Your task to perform on an android device: Go to Google Image 0: 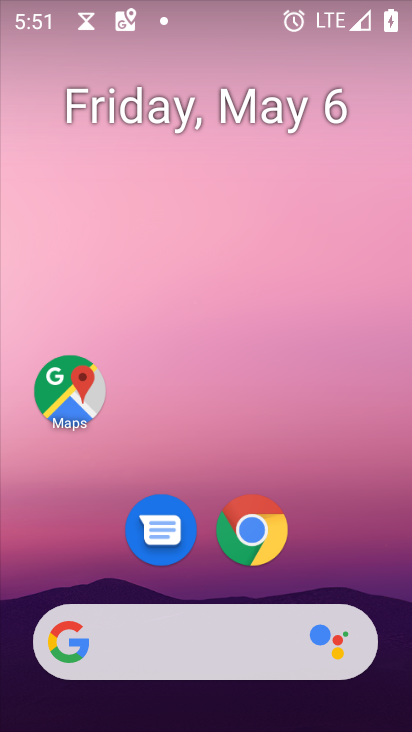
Step 0: click (166, 643)
Your task to perform on an android device: Go to Google Image 1: 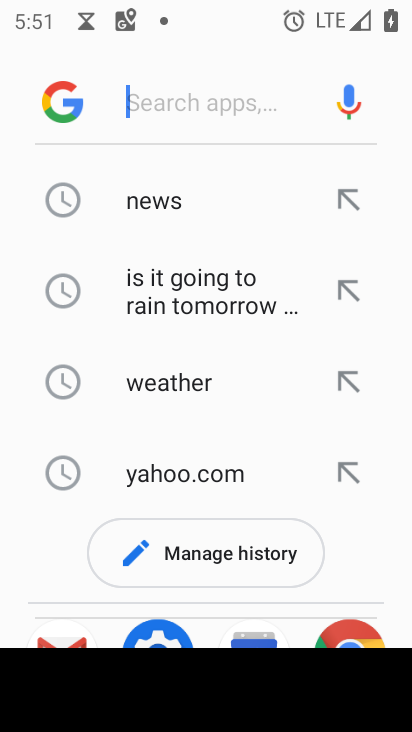
Step 1: task complete